Your task to perform on an android device: What is the news today? Image 0: 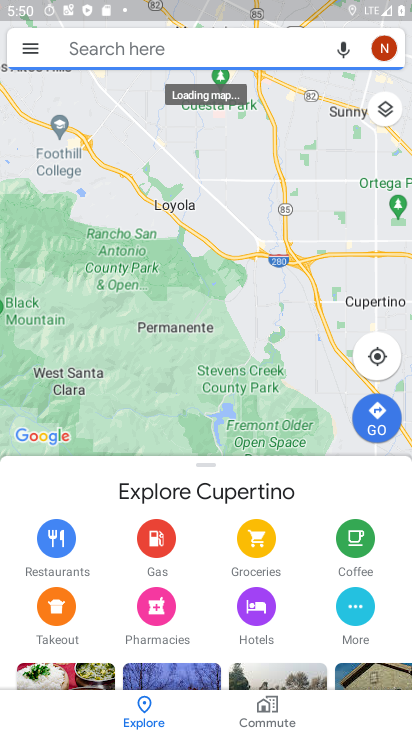
Step 0: press home button
Your task to perform on an android device: What is the news today? Image 1: 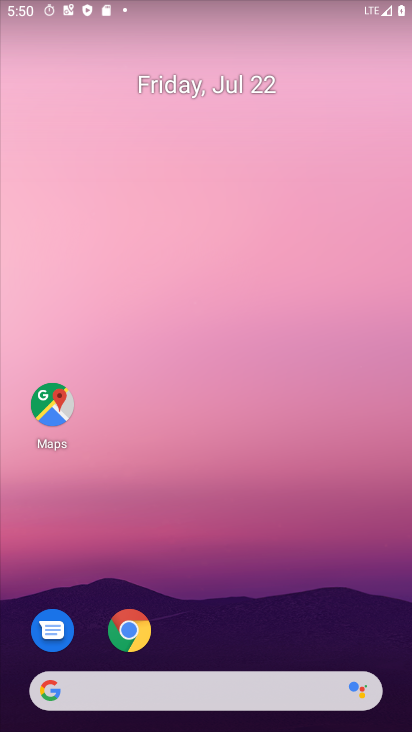
Step 1: drag from (238, 618) to (242, 60)
Your task to perform on an android device: What is the news today? Image 2: 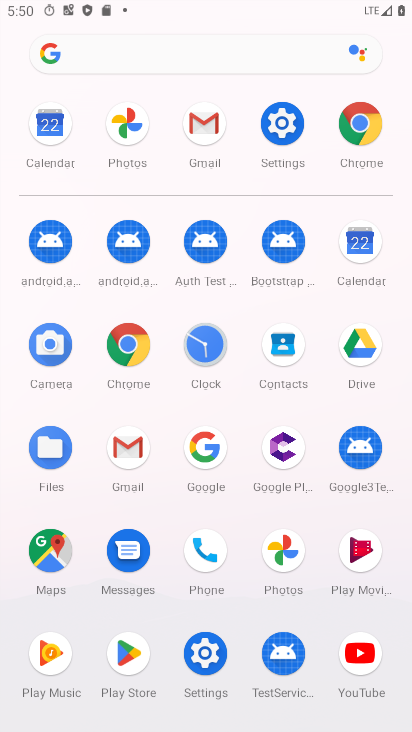
Step 2: click (138, 347)
Your task to perform on an android device: What is the news today? Image 3: 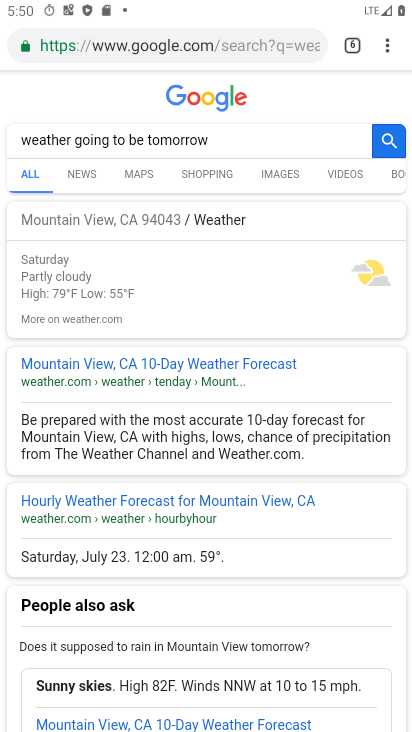
Step 3: click (177, 54)
Your task to perform on an android device: What is the news today? Image 4: 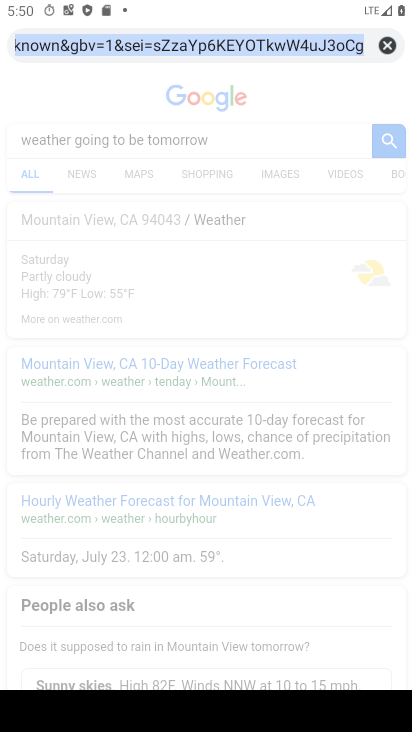
Step 4: type "what is the news today"
Your task to perform on an android device: What is the news today? Image 5: 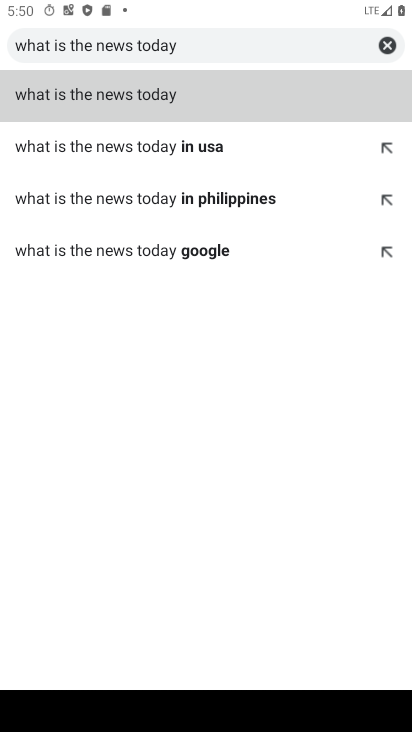
Step 5: click (198, 106)
Your task to perform on an android device: What is the news today? Image 6: 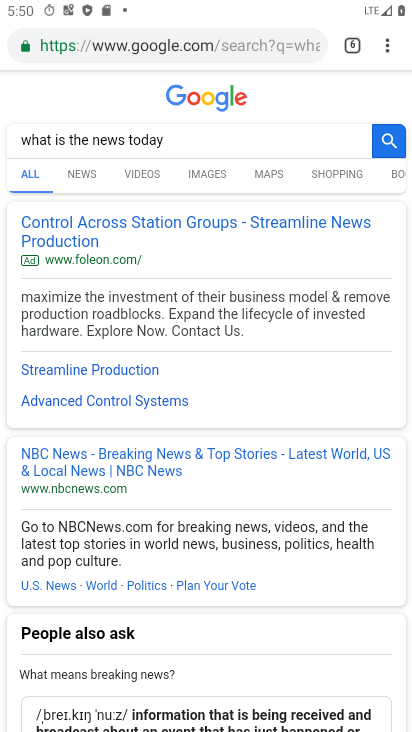
Step 6: task complete